Your task to perform on an android device: Check out the best rated books on Goodreads. Image 0: 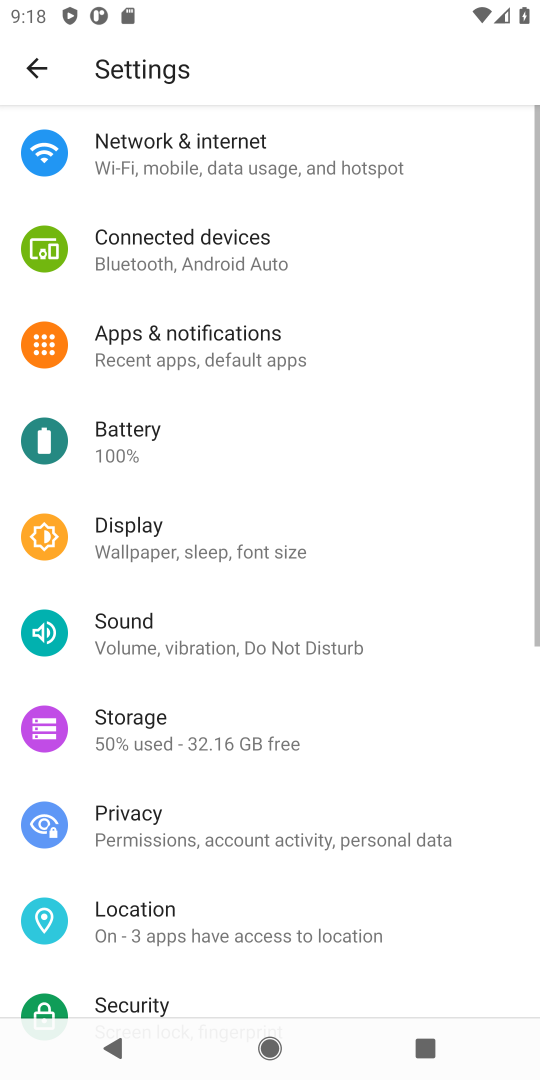
Step 0: press home button
Your task to perform on an android device: Check out the best rated books on Goodreads. Image 1: 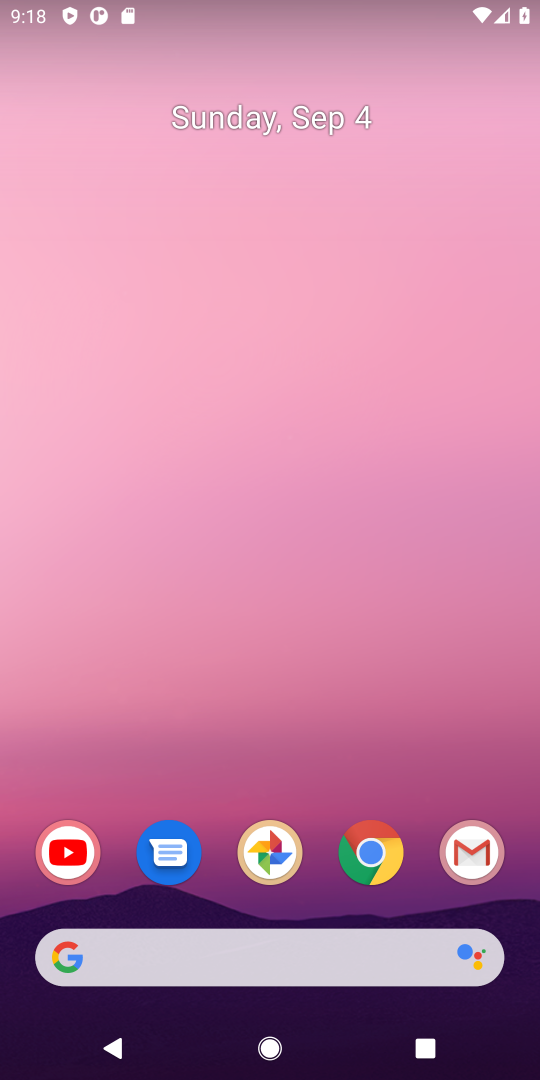
Step 1: drag from (313, 190) to (263, 43)
Your task to perform on an android device: Check out the best rated books on Goodreads. Image 2: 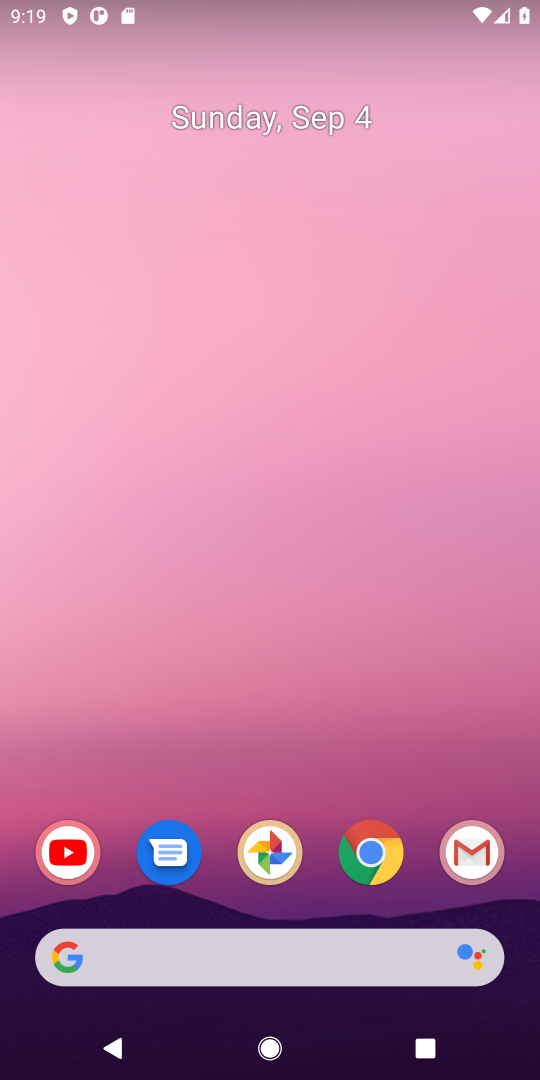
Step 2: click (247, 35)
Your task to perform on an android device: Check out the best rated books on Goodreads. Image 3: 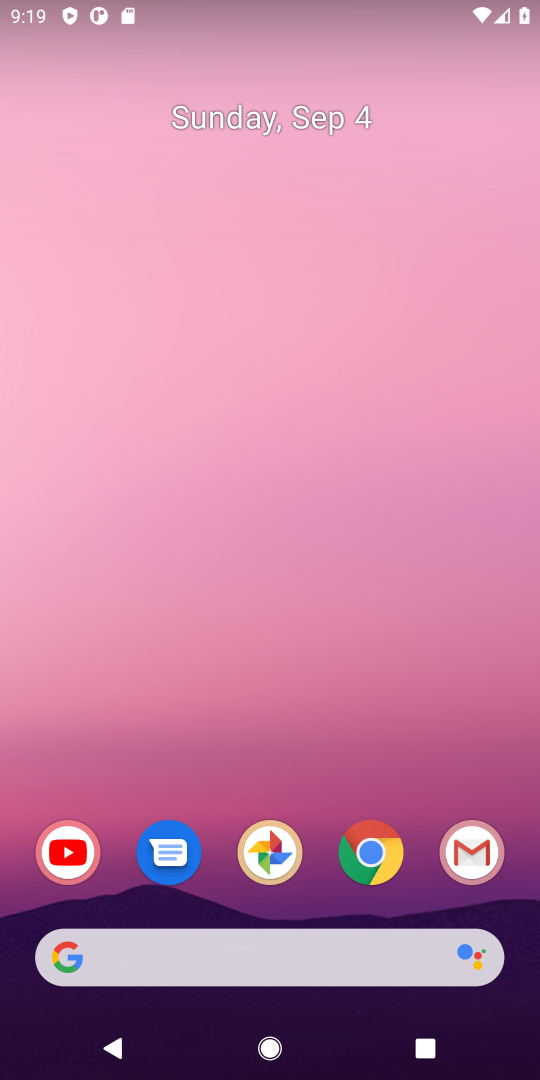
Step 3: drag from (254, 13) to (254, 123)
Your task to perform on an android device: Check out the best rated books on Goodreads. Image 4: 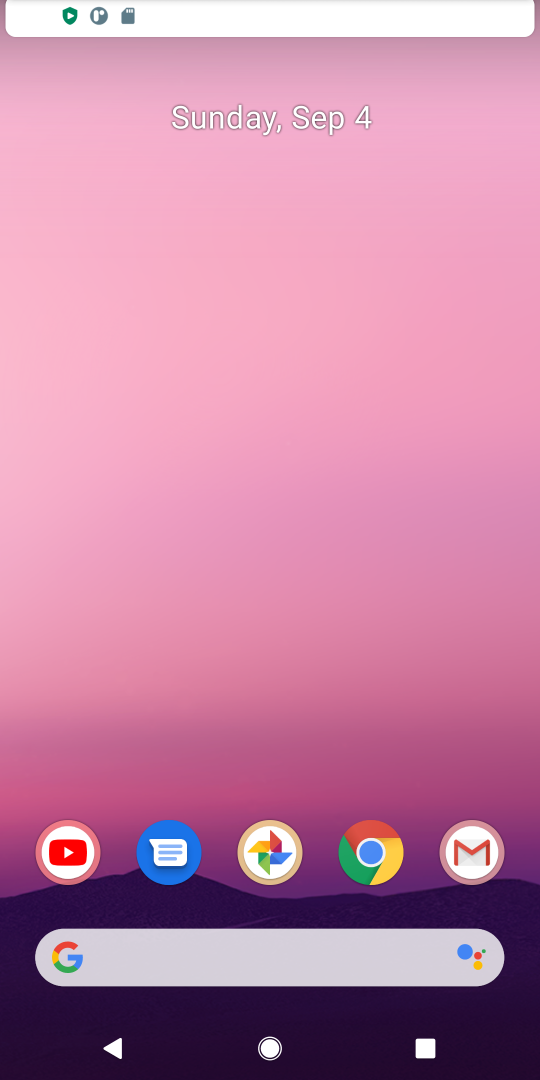
Step 4: drag from (310, 232) to (280, 151)
Your task to perform on an android device: Check out the best rated books on Goodreads. Image 5: 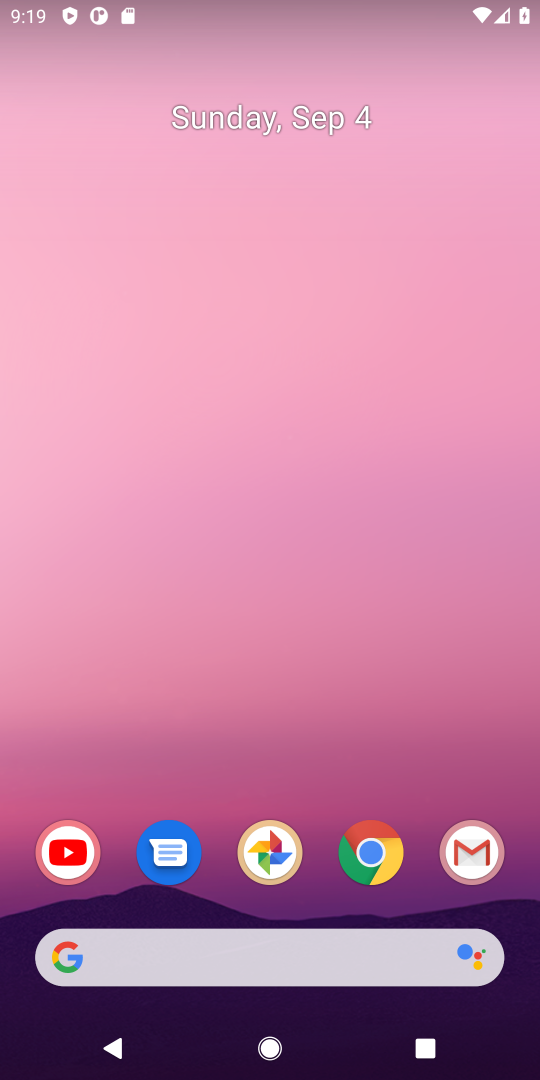
Step 5: click (248, 0)
Your task to perform on an android device: Check out the best rated books on Goodreads. Image 6: 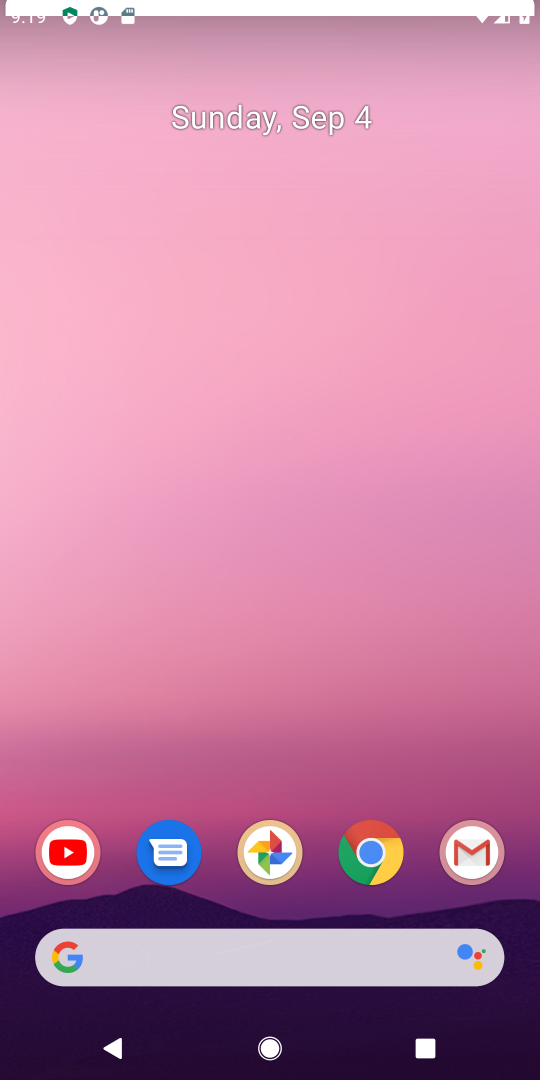
Step 6: drag from (402, 739) to (242, 138)
Your task to perform on an android device: Check out the best rated books on Goodreads. Image 7: 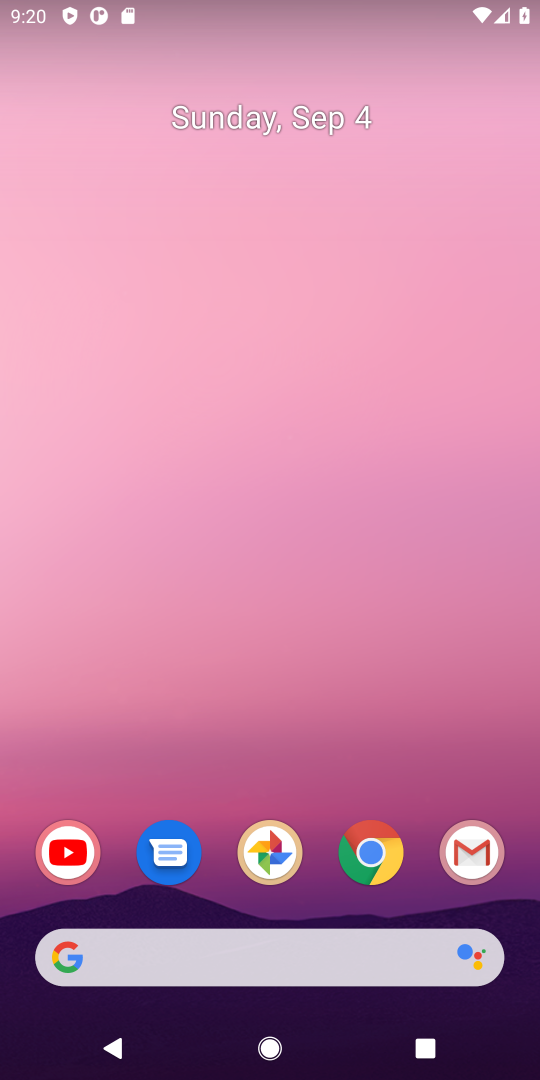
Step 7: drag from (418, 859) to (270, 10)
Your task to perform on an android device: Check out the best rated books on Goodreads. Image 8: 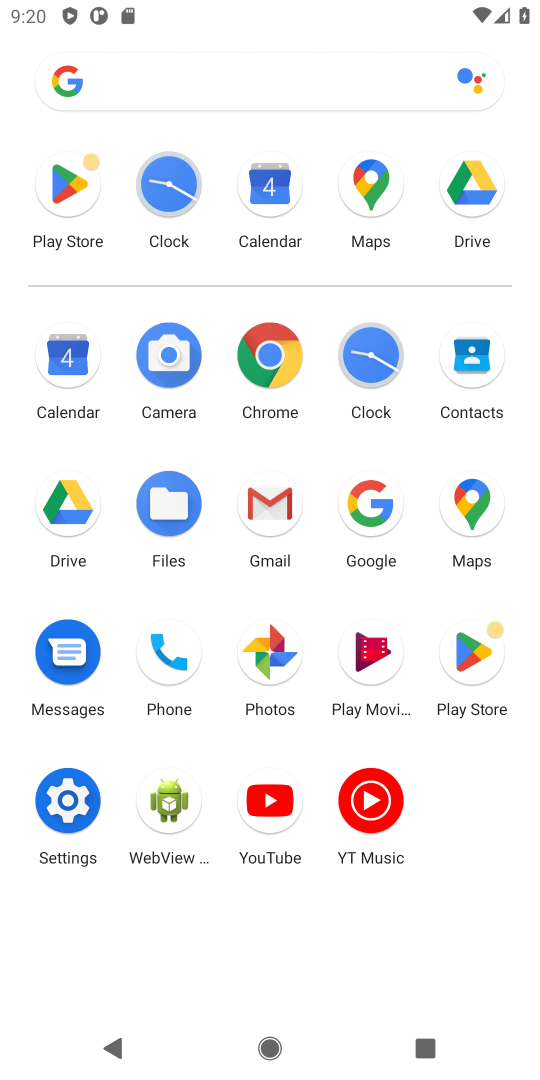
Step 8: click (368, 517)
Your task to perform on an android device: Check out the best rated books on Goodreads. Image 9: 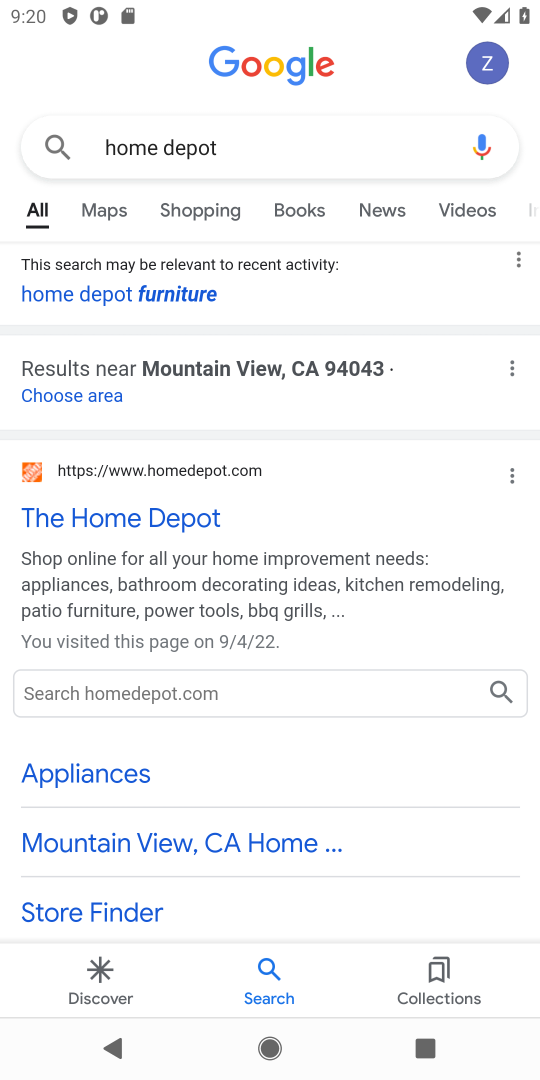
Step 9: press back button
Your task to perform on an android device: Check out the best rated books on Goodreads. Image 10: 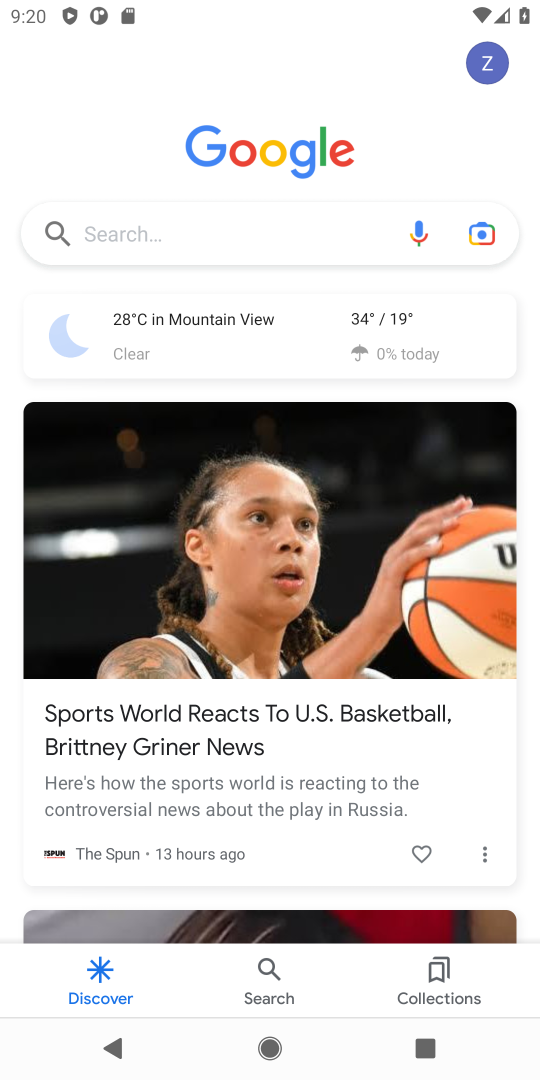
Step 10: click (143, 235)
Your task to perform on an android device: Check out the best rated books on Goodreads. Image 11: 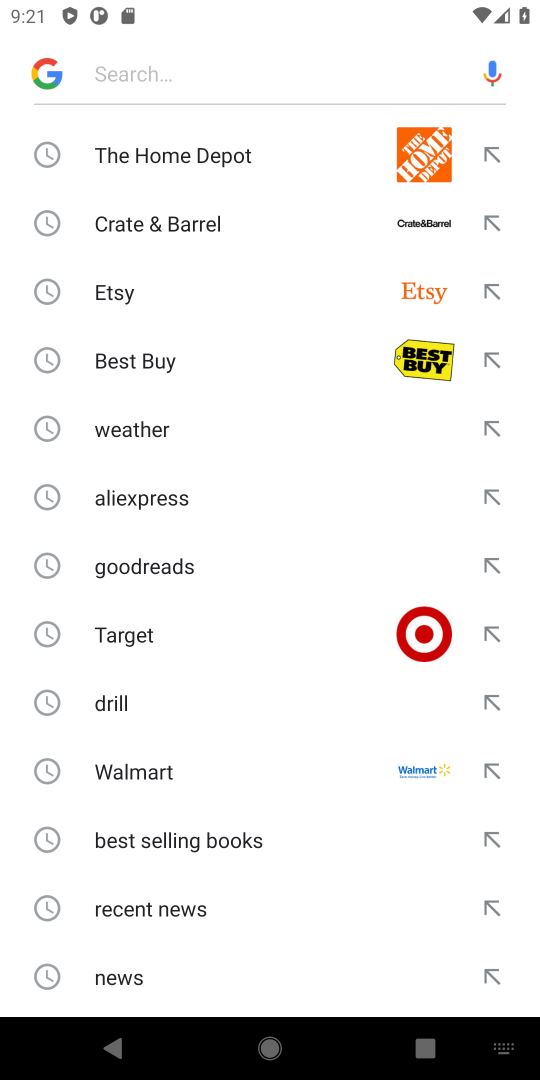
Step 11: drag from (195, 850) to (109, 217)
Your task to perform on an android device: Check out the best rated books on Goodreads. Image 12: 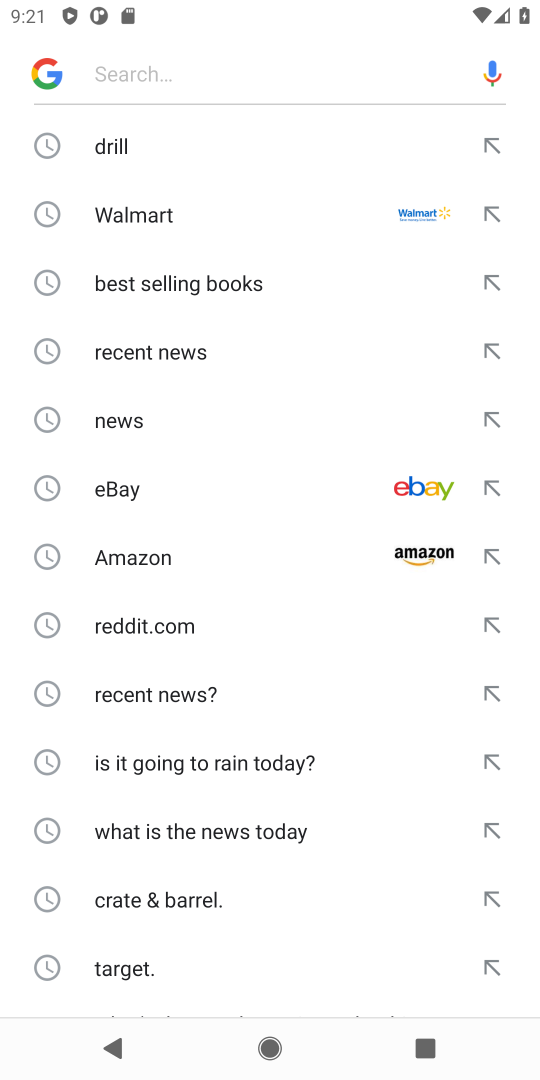
Step 12: type "Goodreads"
Your task to perform on an android device: Check out the best rated books on Goodreads. Image 13: 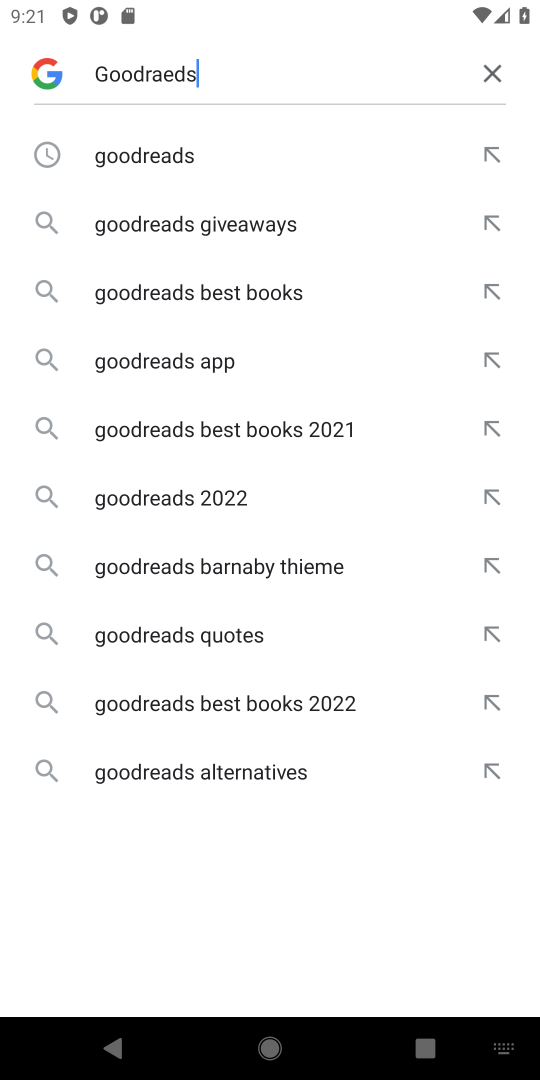
Step 13: click (147, 147)
Your task to perform on an android device: Check out the best rated books on Goodreads. Image 14: 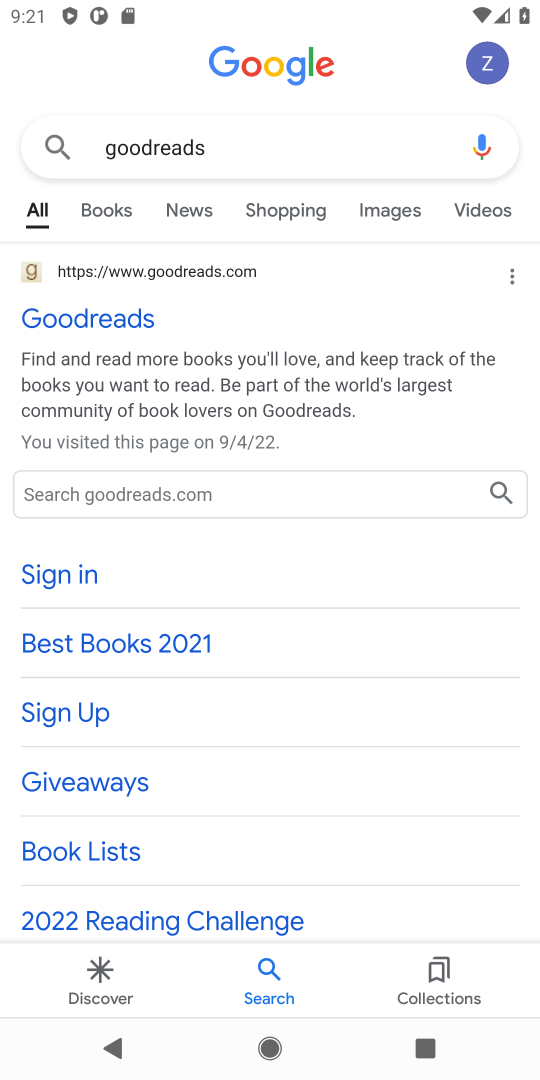
Step 14: click (127, 311)
Your task to perform on an android device: Check out the best rated books on Goodreads. Image 15: 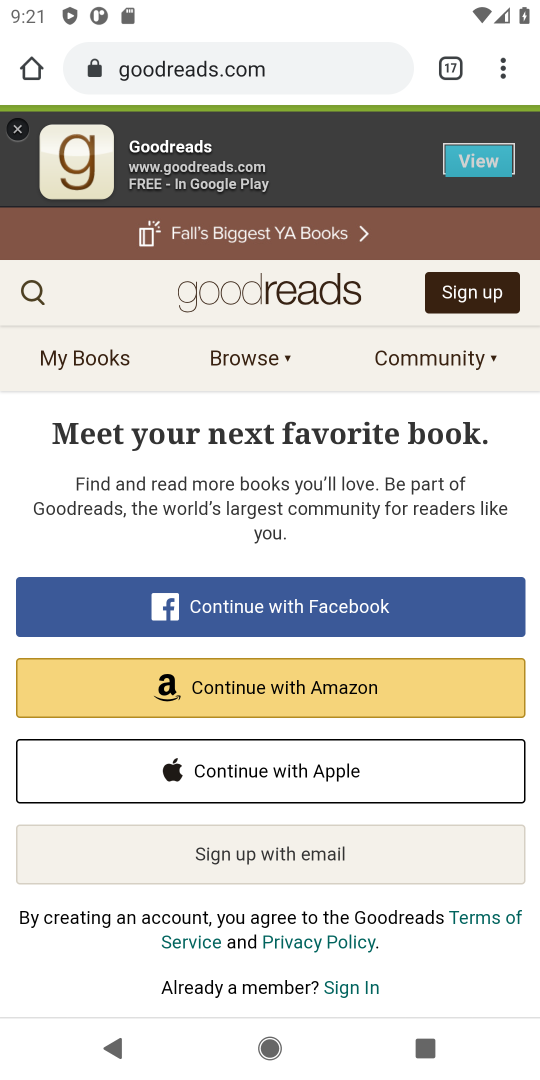
Step 15: task complete